Your task to perform on an android device: Open calendar and show me the second week of next month Image 0: 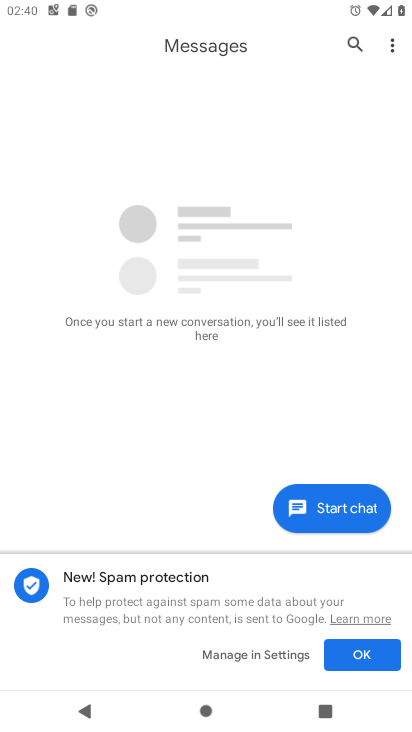
Step 0: press home button
Your task to perform on an android device: Open calendar and show me the second week of next month Image 1: 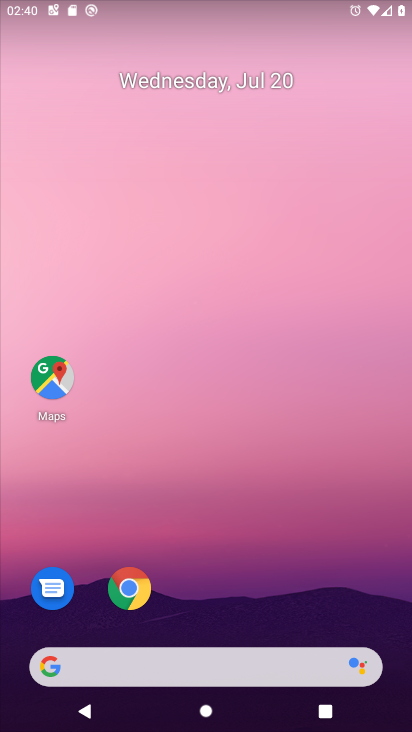
Step 1: click (219, 376)
Your task to perform on an android device: Open calendar and show me the second week of next month Image 2: 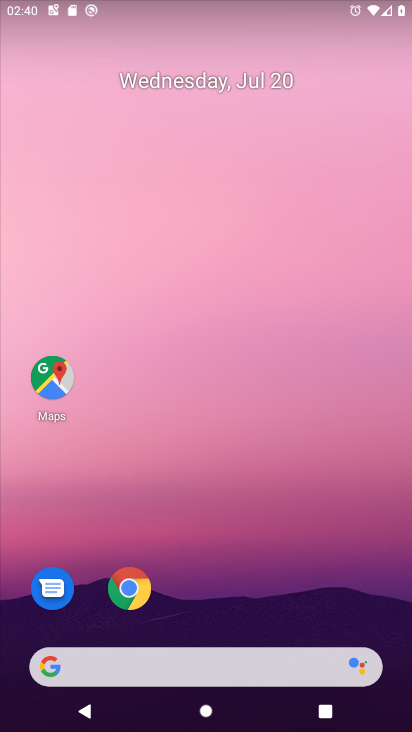
Step 2: drag from (223, 666) to (259, 246)
Your task to perform on an android device: Open calendar and show me the second week of next month Image 3: 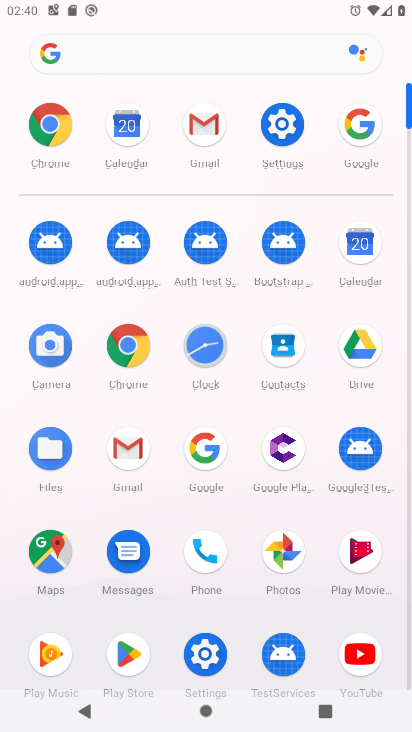
Step 3: click (366, 250)
Your task to perform on an android device: Open calendar and show me the second week of next month Image 4: 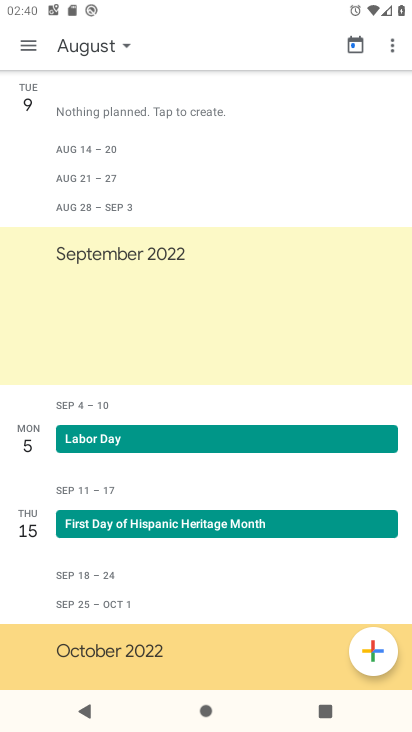
Step 4: click (27, 40)
Your task to perform on an android device: Open calendar and show me the second week of next month Image 5: 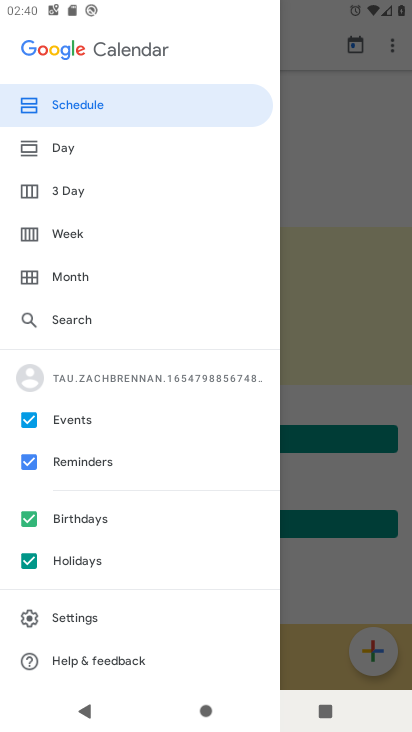
Step 5: click (88, 266)
Your task to perform on an android device: Open calendar and show me the second week of next month Image 6: 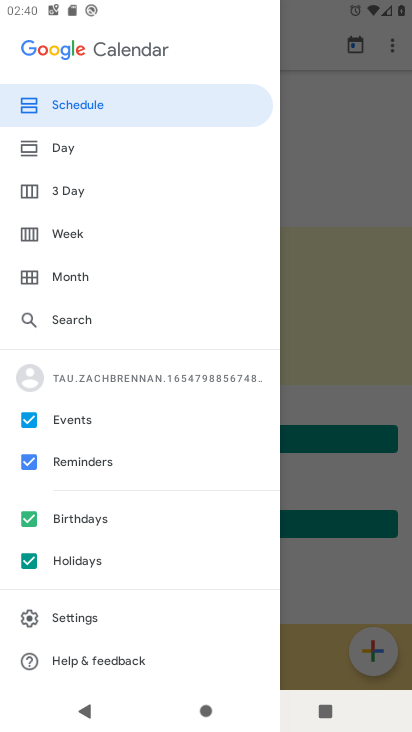
Step 6: click (85, 267)
Your task to perform on an android device: Open calendar and show me the second week of next month Image 7: 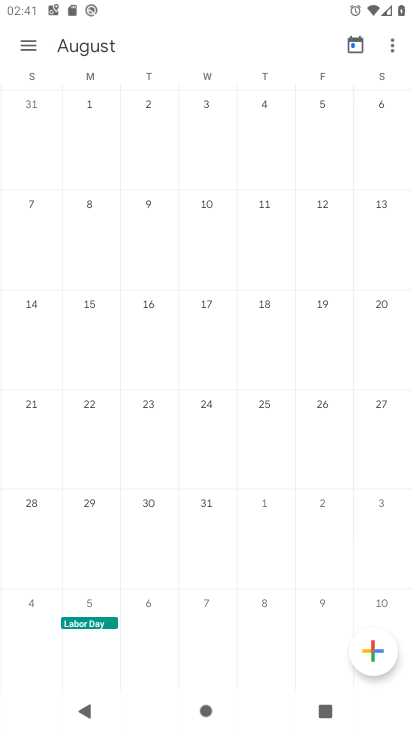
Step 7: task complete